Your task to perform on an android device: set the stopwatch Image 0: 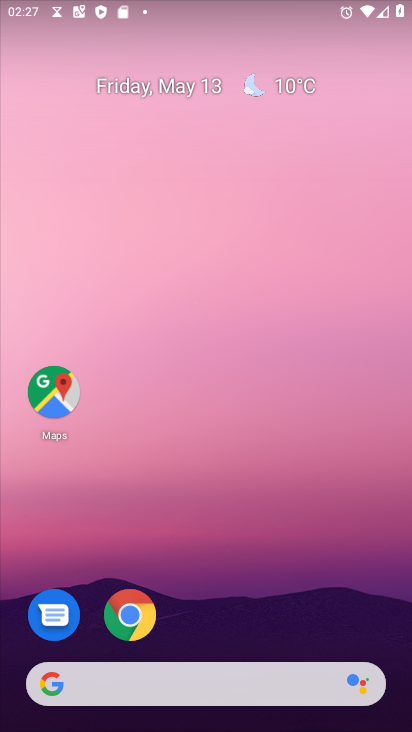
Step 0: drag from (225, 616) to (90, 129)
Your task to perform on an android device: set the stopwatch Image 1: 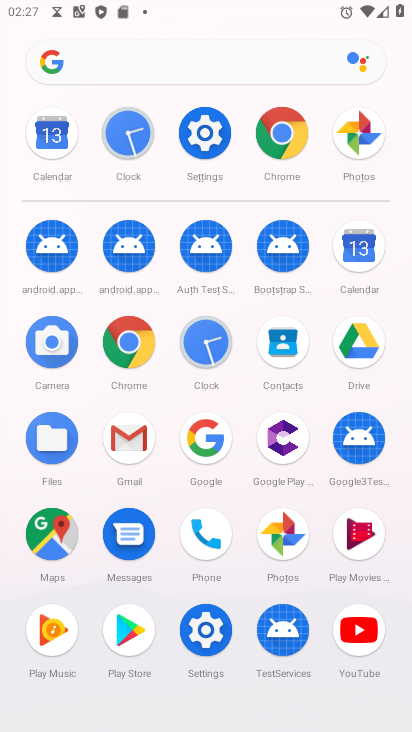
Step 1: click (119, 149)
Your task to perform on an android device: set the stopwatch Image 2: 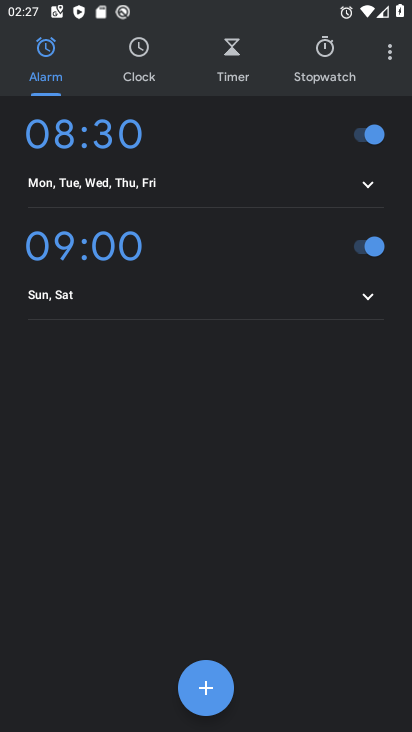
Step 2: click (325, 62)
Your task to perform on an android device: set the stopwatch Image 3: 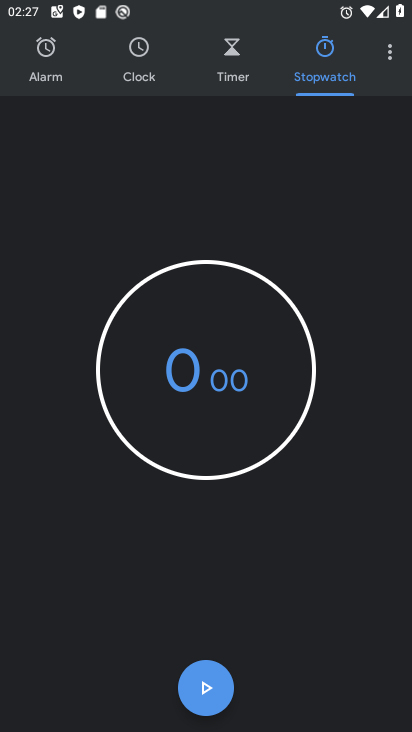
Step 3: click (193, 684)
Your task to perform on an android device: set the stopwatch Image 4: 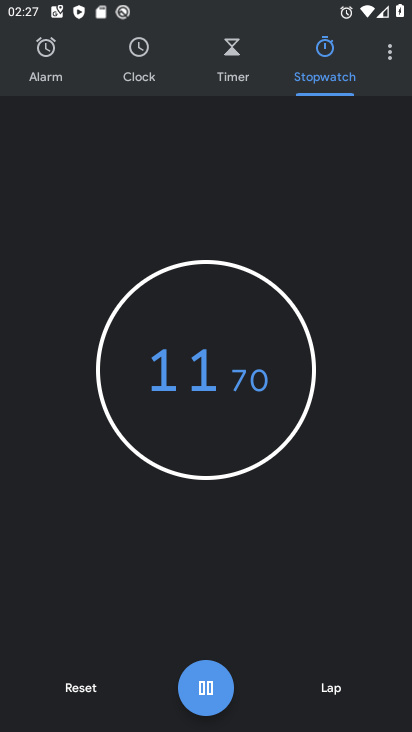
Step 4: task complete